Your task to perform on an android device: turn off improve location accuracy Image 0: 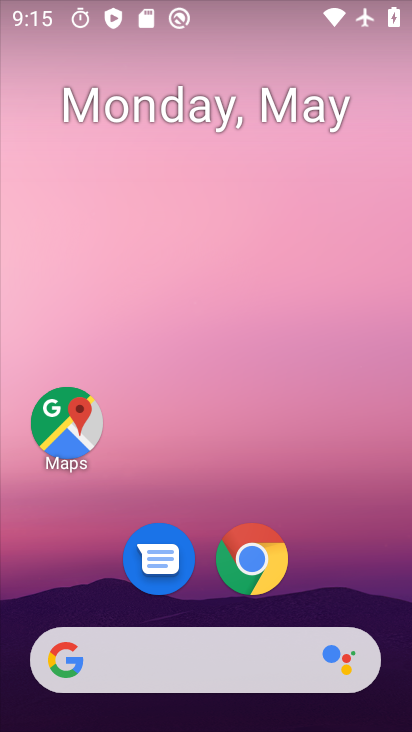
Step 0: drag from (335, 527) to (333, 64)
Your task to perform on an android device: turn off improve location accuracy Image 1: 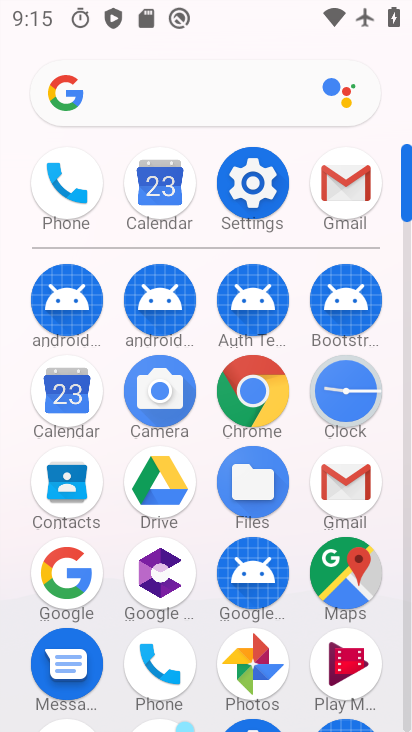
Step 1: click (243, 179)
Your task to perform on an android device: turn off improve location accuracy Image 2: 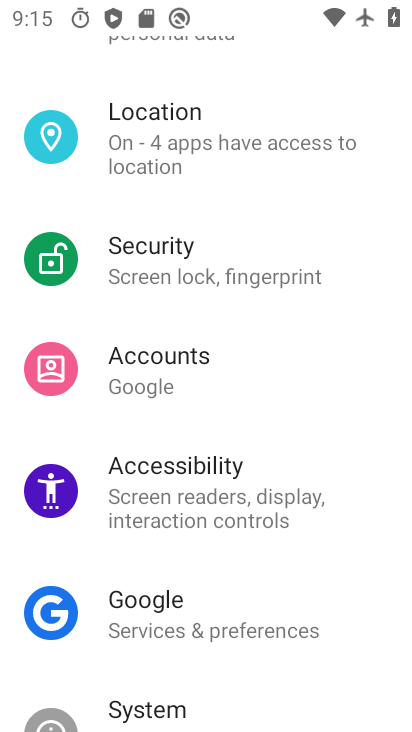
Step 2: click (178, 133)
Your task to perform on an android device: turn off improve location accuracy Image 3: 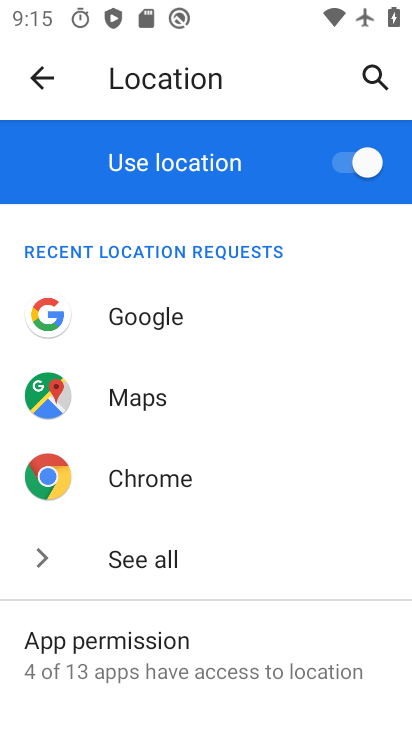
Step 3: drag from (185, 656) to (198, 275)
Your task to perform on an android device: turn off improve location accuracy Image 4: 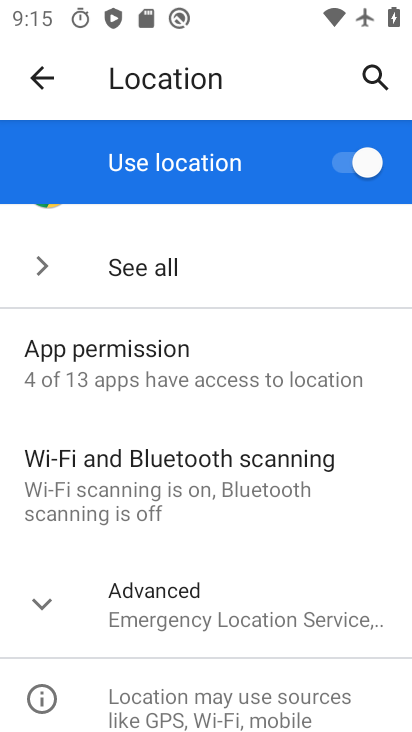
Step 4: click (188, 601)
Your task to perform on an android device: turn off improve location accuracy Image 5: 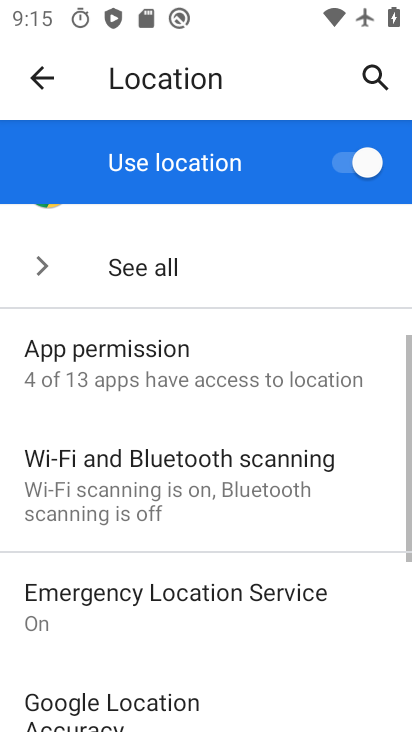
Step 5: drag from (195, 655) to (230, 344)
Your task to perform on an android device: turn off improve location accuracy Image 6: 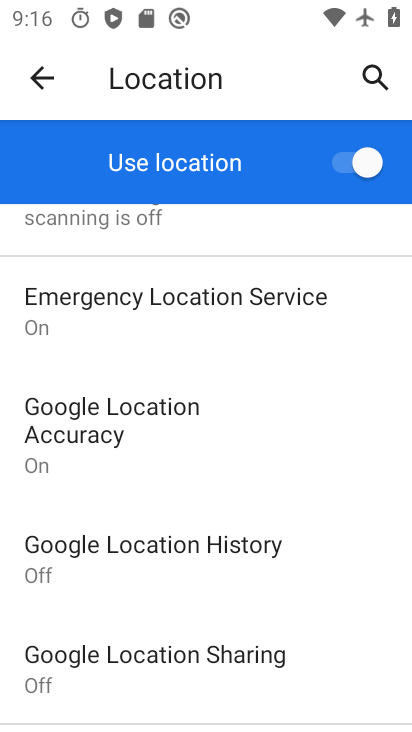
Step 6: click (136, 416)
Your task to perform on an android device: turn off improve location accuracy Image 7: 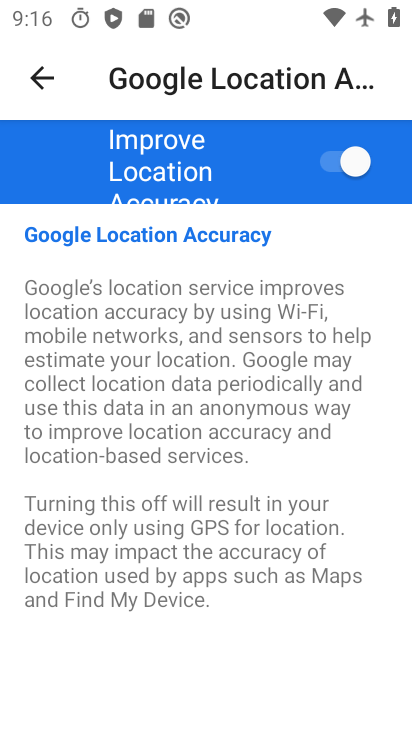
Step 7: click (344, 141)
Your task to perform on an android device: turn off improve location accuracy Image 8: 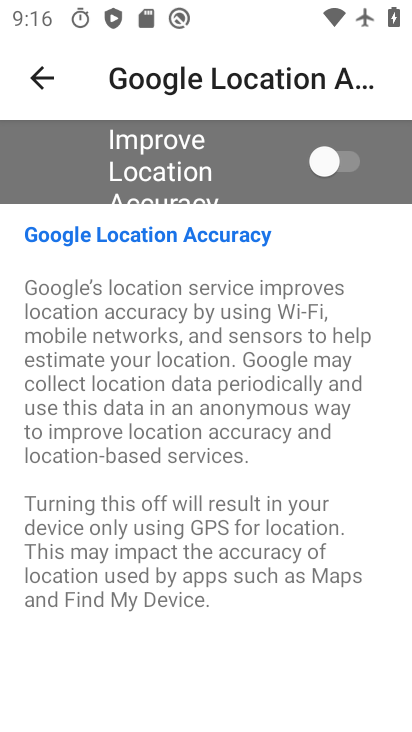
Step 8: task complete